Your task to perform on an android device: Open Chrome and go to settings Image 0: 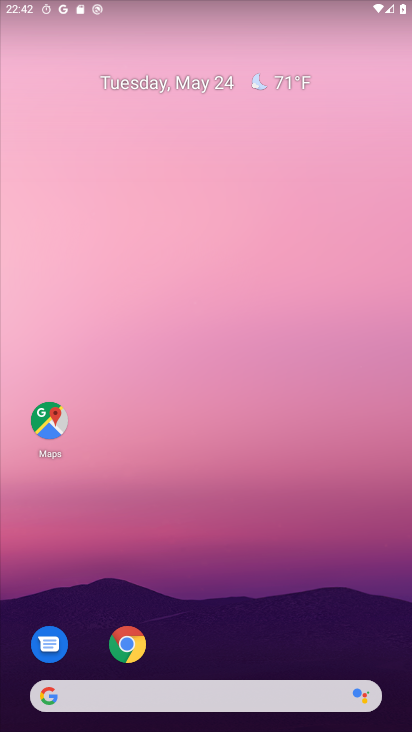
Step 0: click (129, 643)
Your task to perform on an android device: Open Chrome and go to settings Image 1: 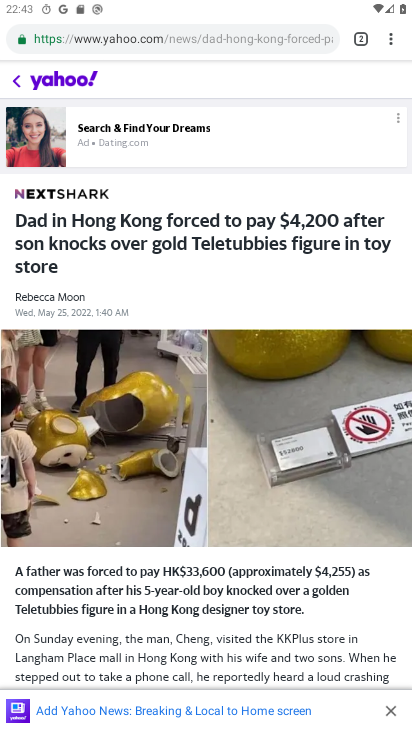
Step 1: click (389, 41)
Your task to perform on an android device: Open Chrome and go to settings Image 2: 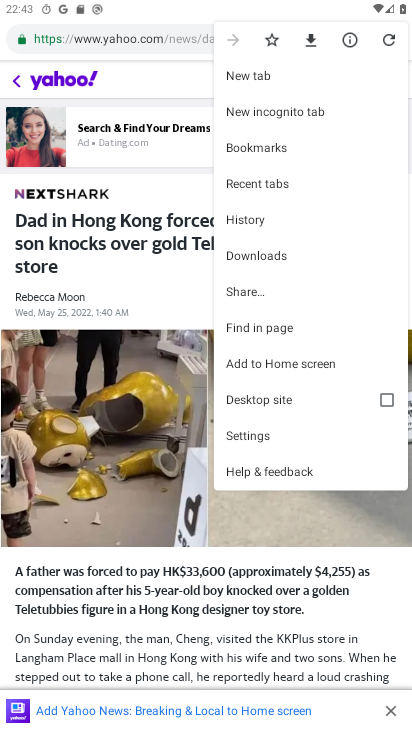
Step 2: click (249, 440)
Your task to perform on an android device: Open Chrome and go to settings Image 3: 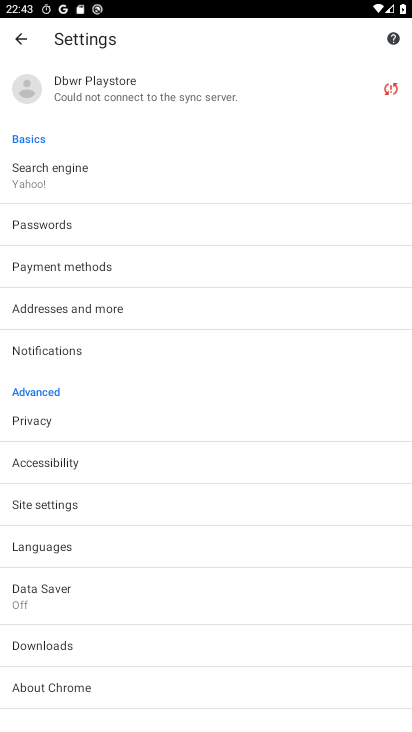
Step 3: task complete